Your task to perform on an android device: change the clock style Image 0: 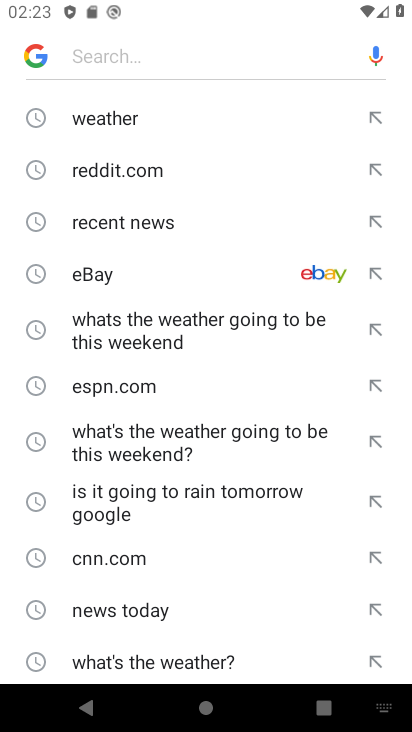
Step 0: press home button
Your task to perform on an android device: change the clock style Image 1: 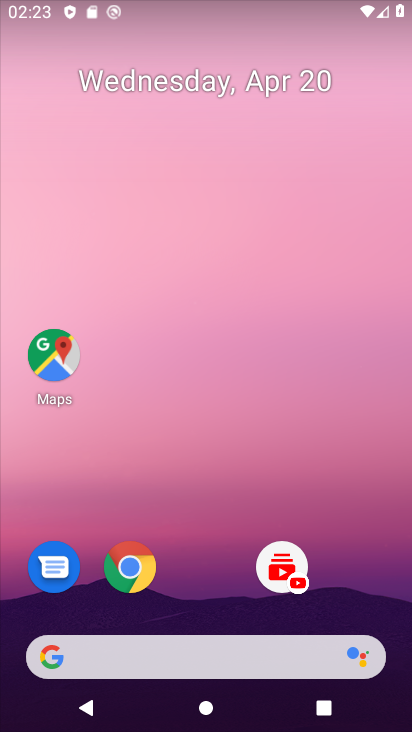
Step 1: drag from (244, 440) to (366, 92)
Your task to perform on an android device: change the clock style Image 2: 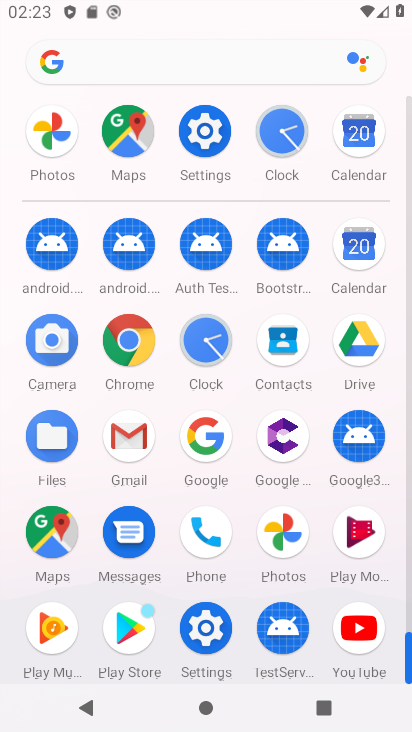
Step 2: click (208, 327)
Your task to perform on an android device: change the clock style Image 3: 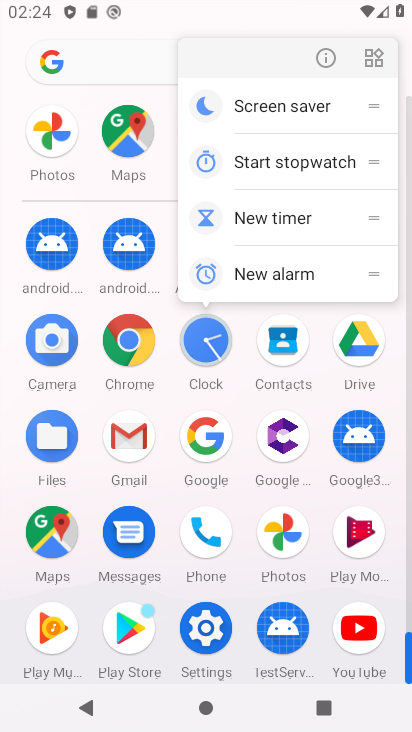
Step 3: click (321, 49)
Your task to perform on an android device: change the clock style Image 4: 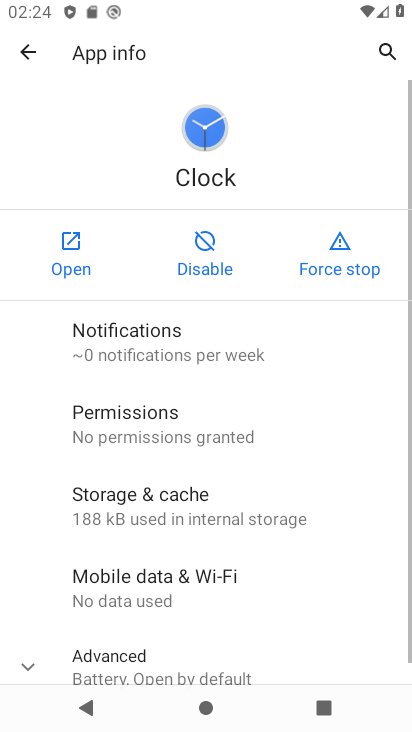
Step 4: click (86, 250)
Your task to perform on an android device: change the clock style Image 5: 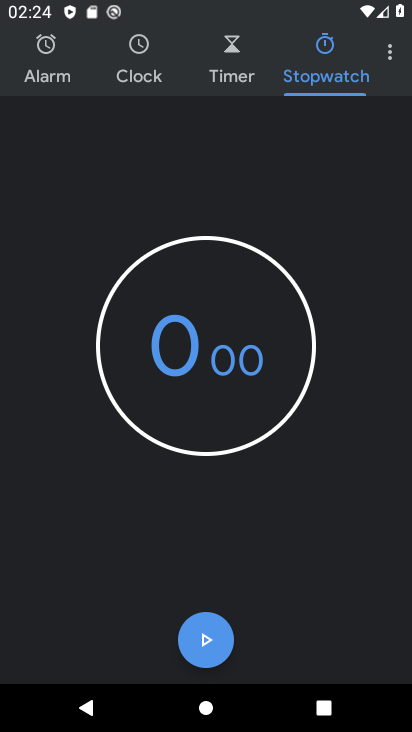
Step 5: click (394, 47)
Your task to perform on an android device: change the clock style Image 6: 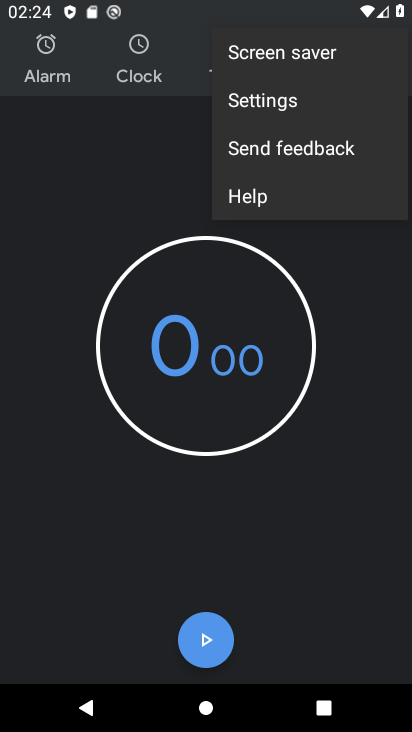
Step 6: click (271, 96)
Your task to perform on an android device: change the clock style Image 7: 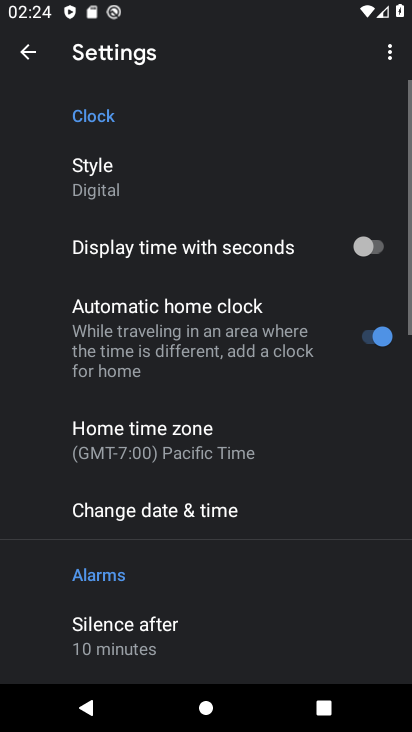
Step 7: click (129, 164)
Your task to perform on an android device: change the clock style Image 8: 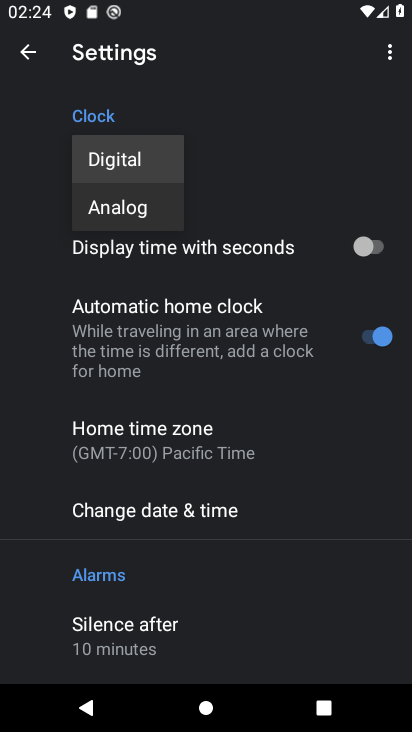
Step 8: click (119, 219)
Your task to perform on an android device: change the clock style Image 9: 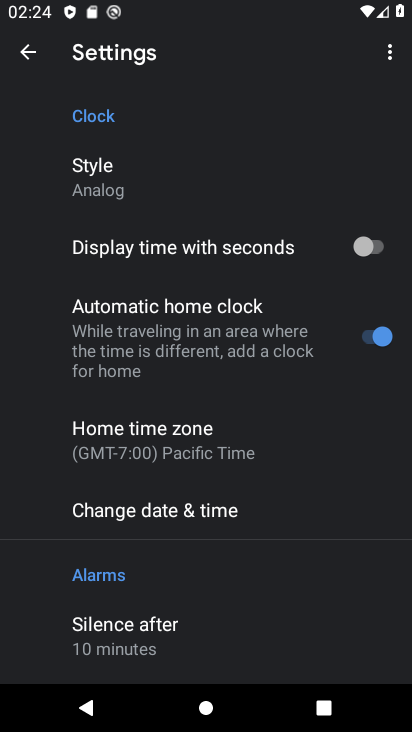
Step 9: task complete